Your task to perform on an android device: turn pop-ups off in chrome Image 0: 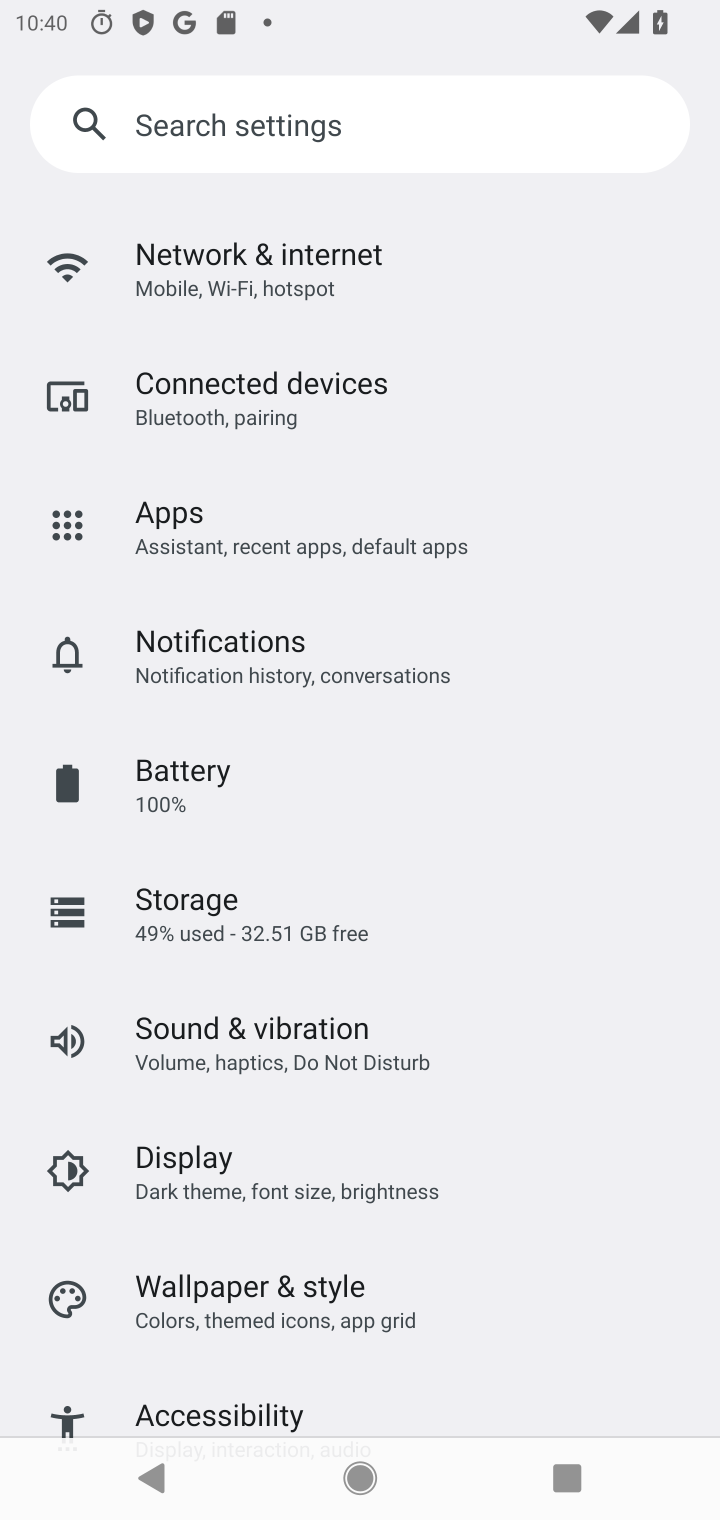
Step 0: press home button
Your task to perform on an android device: turn pop-ups off in chrome Image 1: 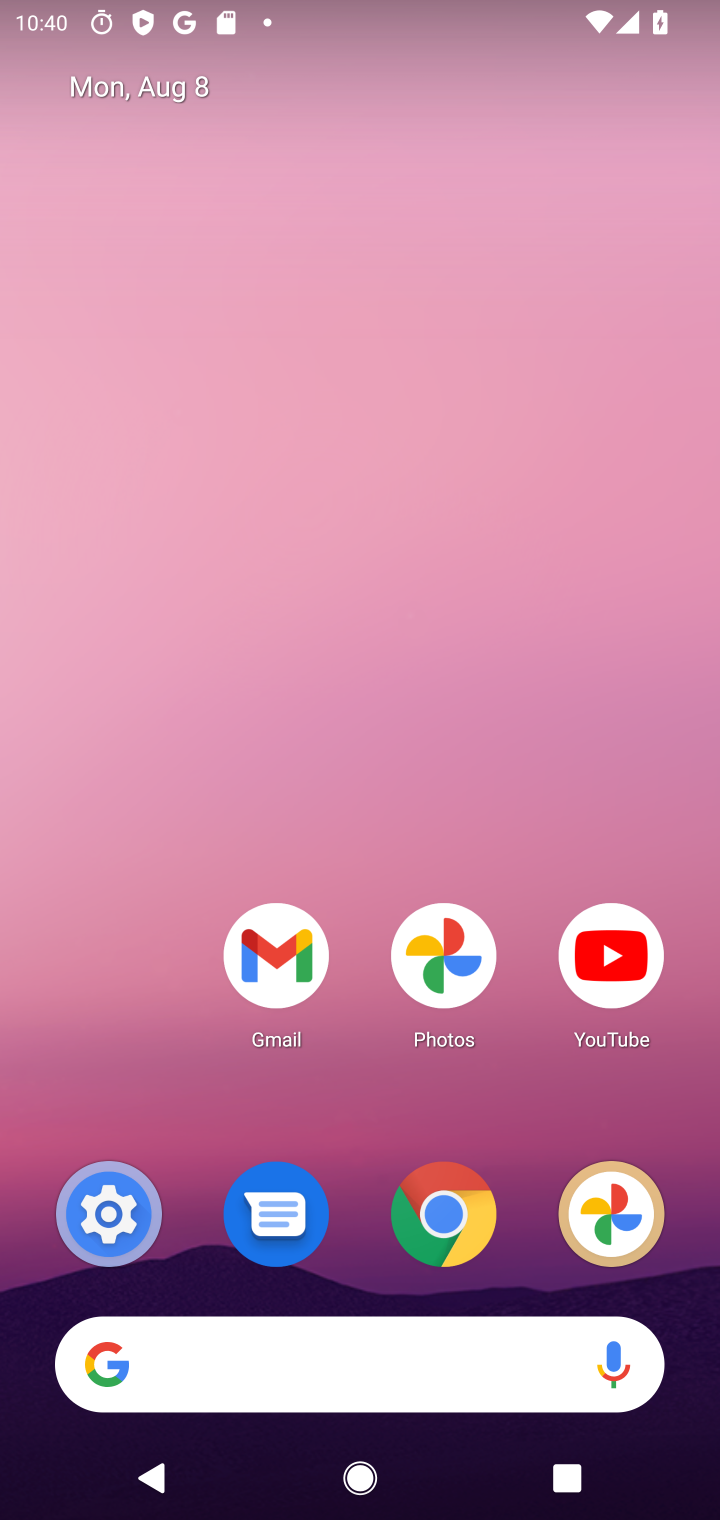
Step 1: click (459, 1223)
Your task to perform on an android device: turn pop-ups off in chrome Image 2: 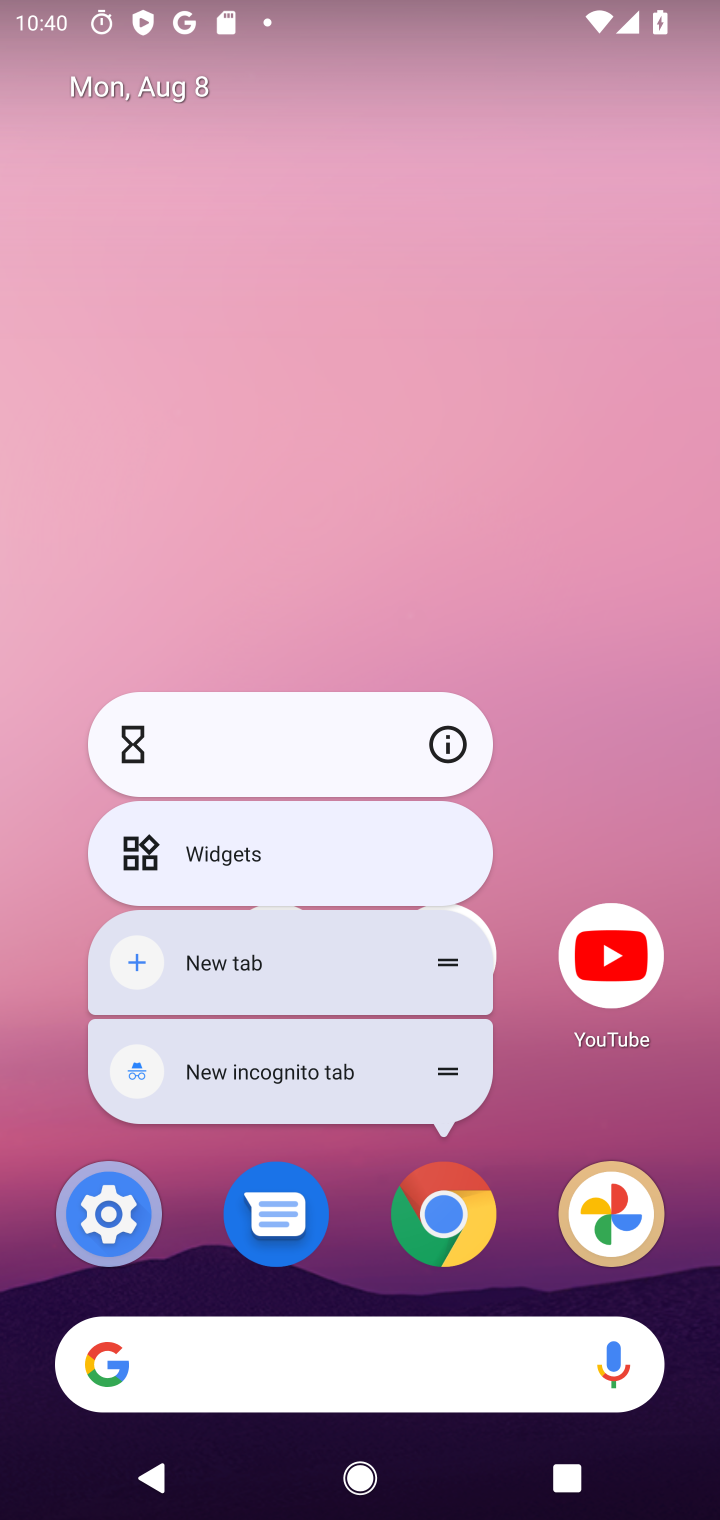
Step 2: click (459, 1223)
Your task to perform on an android device: turn pop-ups off in chrome Image 3: 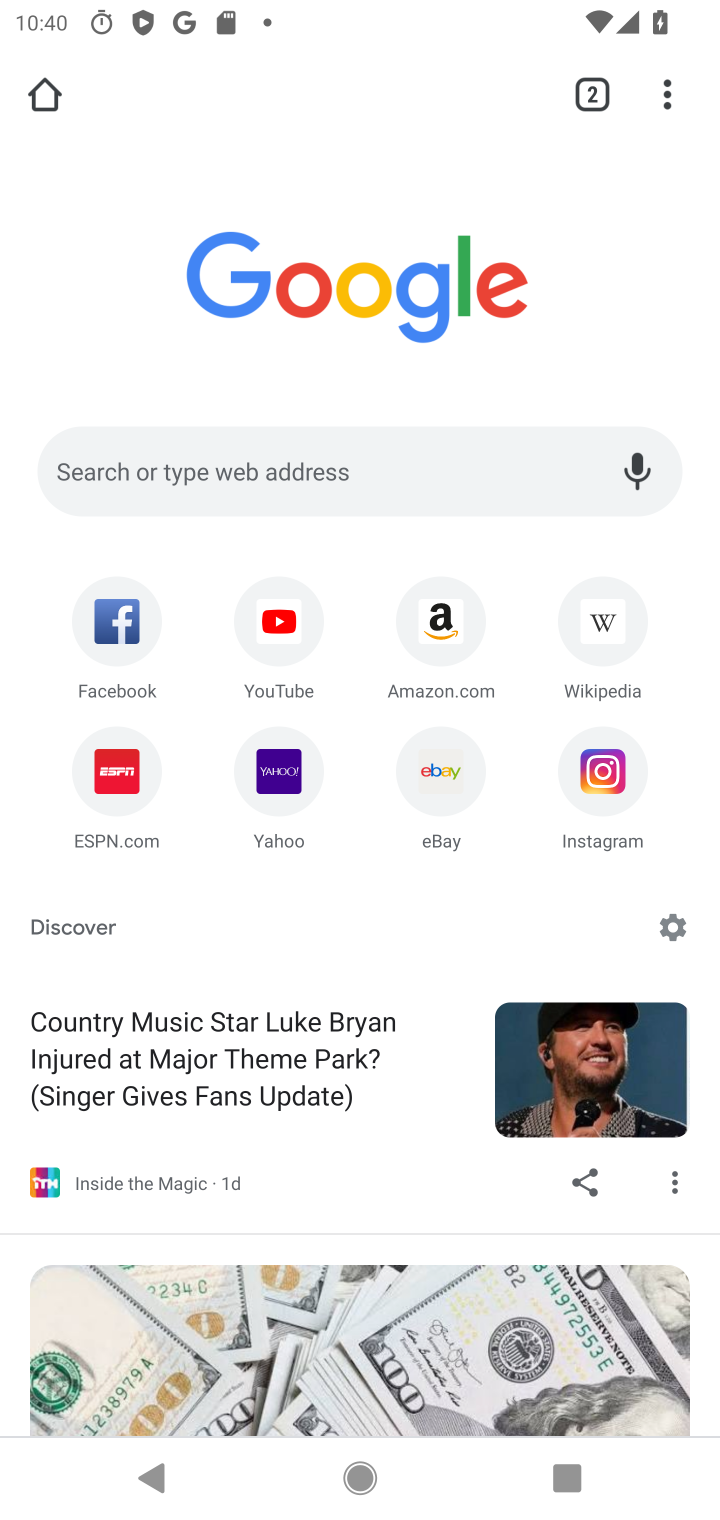
Step 3: click (671, 95)
Your task to perform on an android device: turn pop-ups off in chrome Image 4: 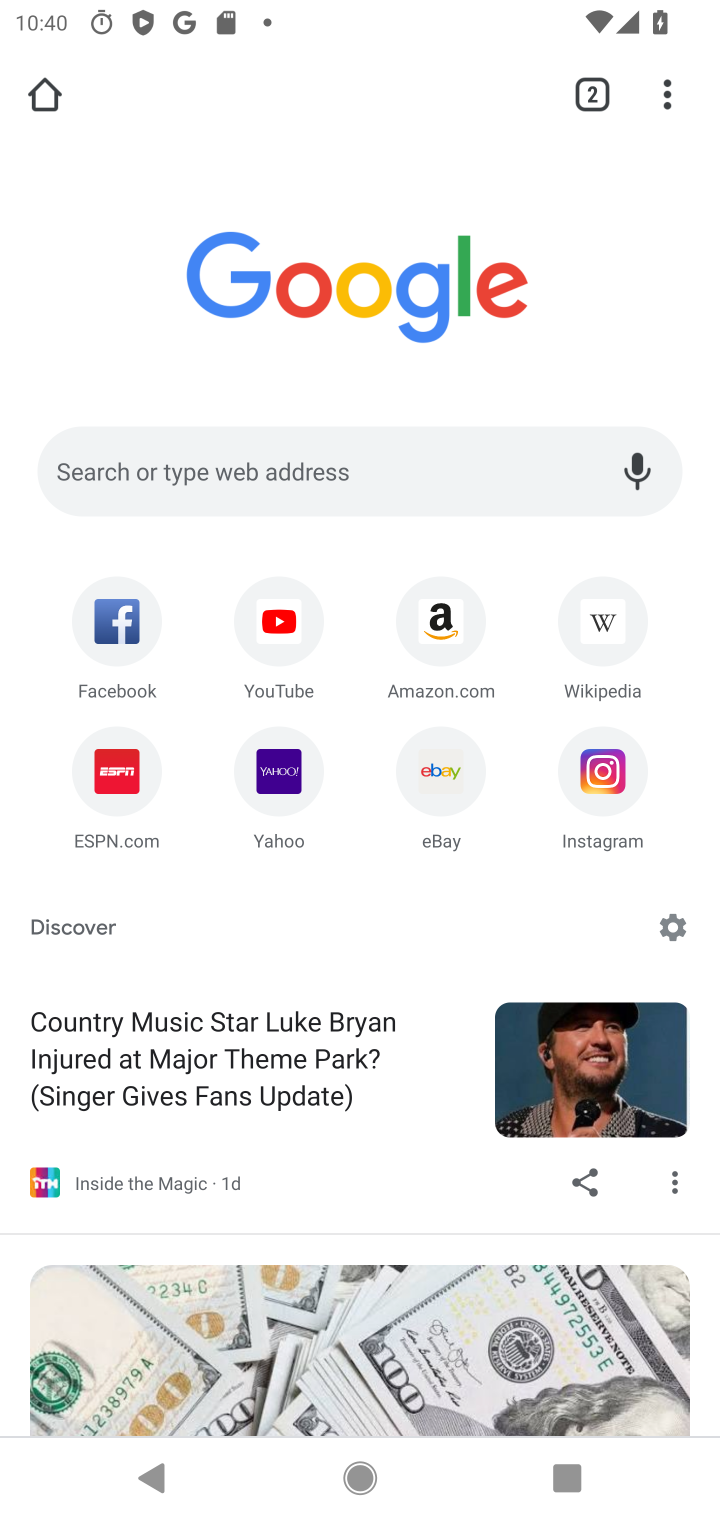
Step 4: click (671, 95)
Your task to perform on an android device: turn pop-ups off in chrome Image 5: 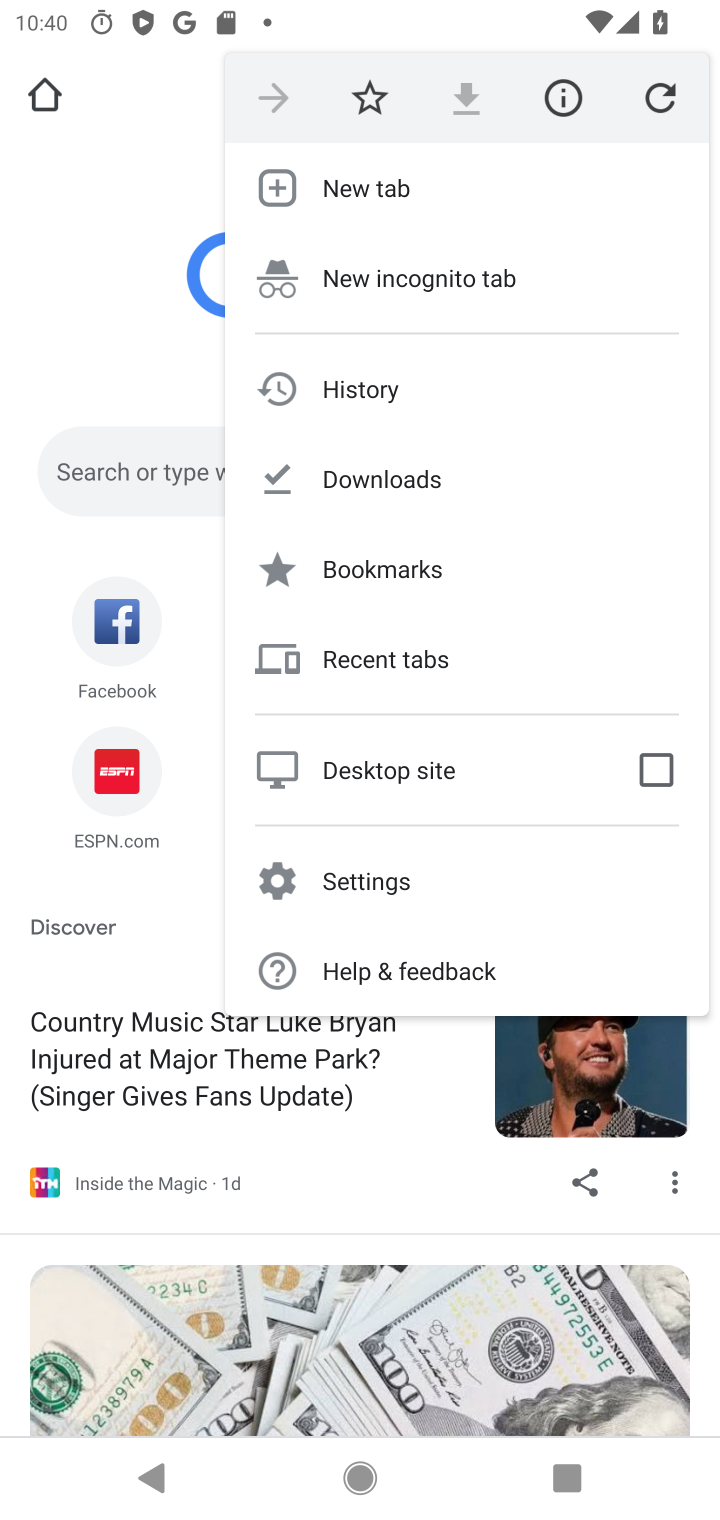
Step 5: click (671, 95)
Your task to perform on an android device: turn pop-ups off in chrome Image 6: 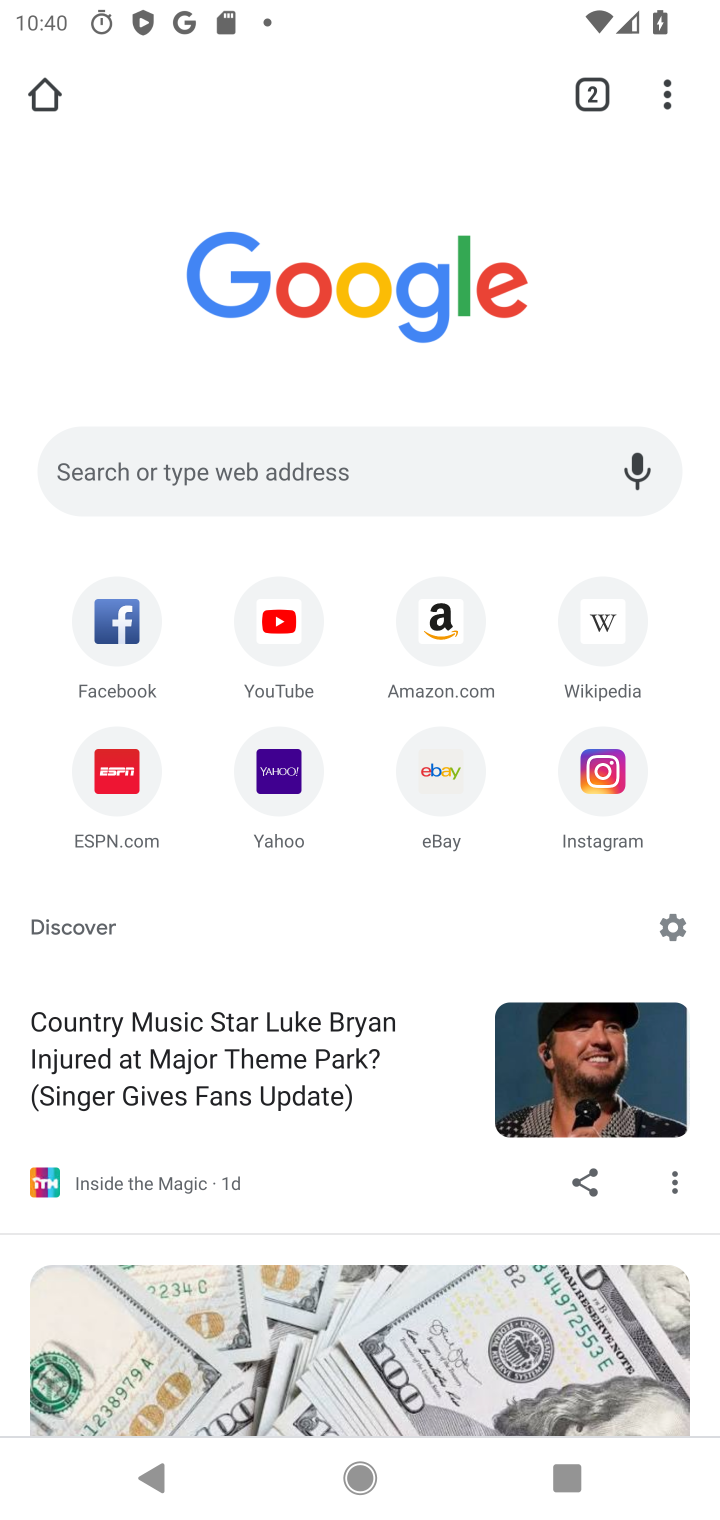
Step 6: click (669, 85)
Your task to perform on an android device: turn pop-ups off in chrome Image 7: 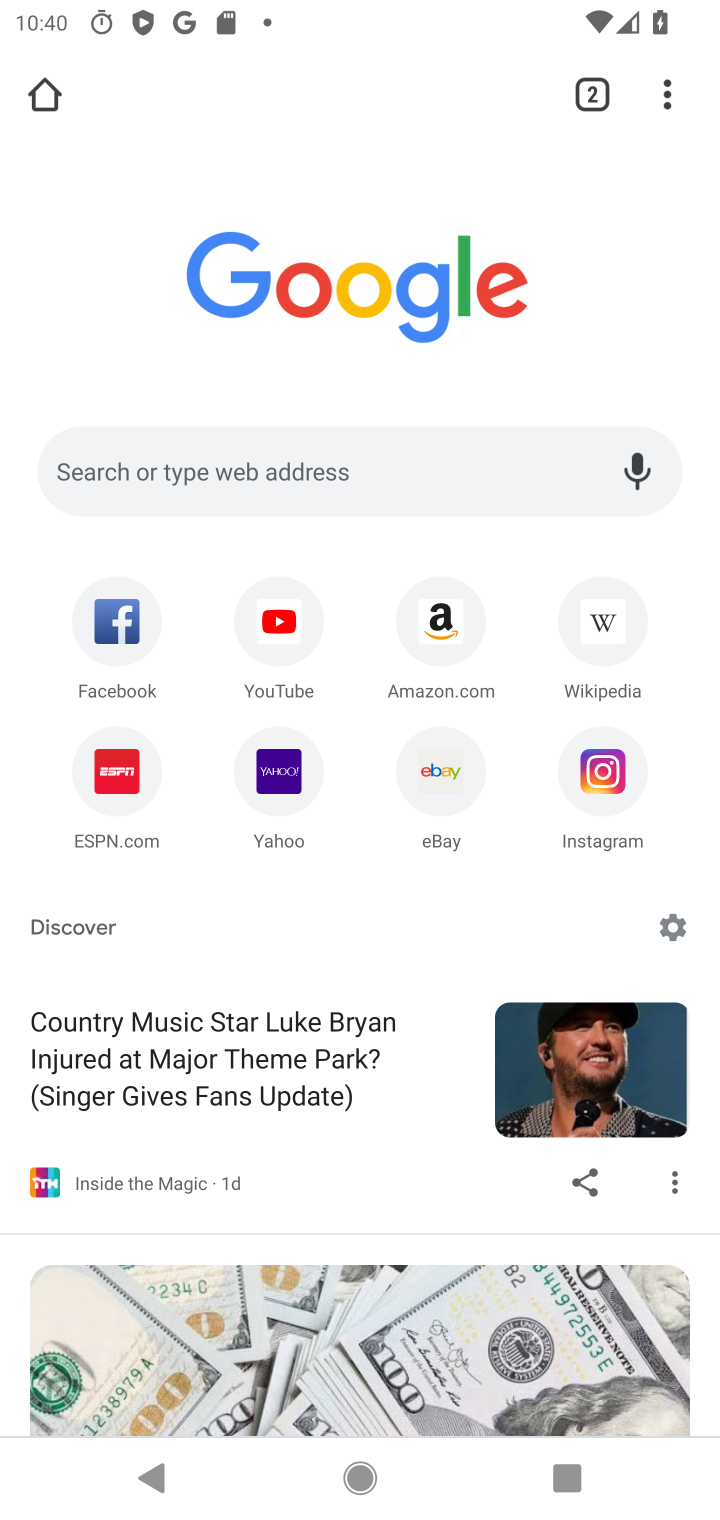
Step 7: click (679, 97)
Your task to perform on an android device: turn pop-ups off in chrome Image 8: 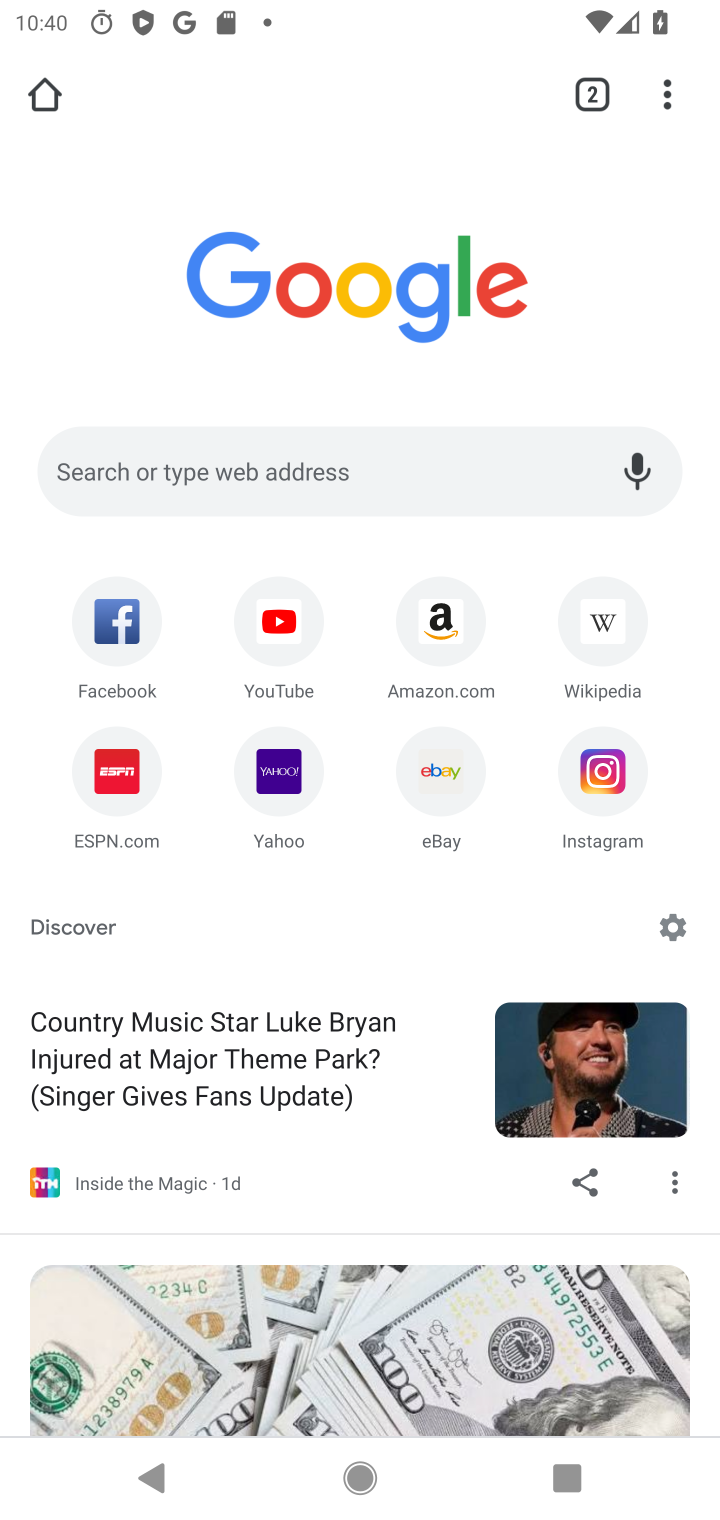
Step 8: task complete